Your task to perform on an android device: Show me popular videos on Youtube Image 0: 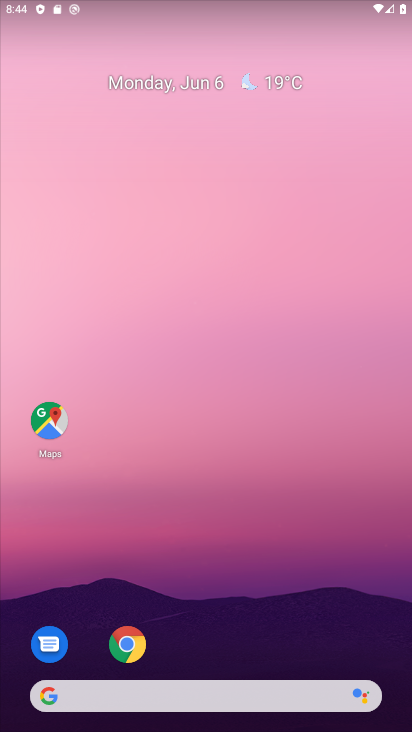
Step 0: drag from (244, 620) to (187, 51)
Your task to perform on an android device: Show me popular videos on Youtube Image 1: 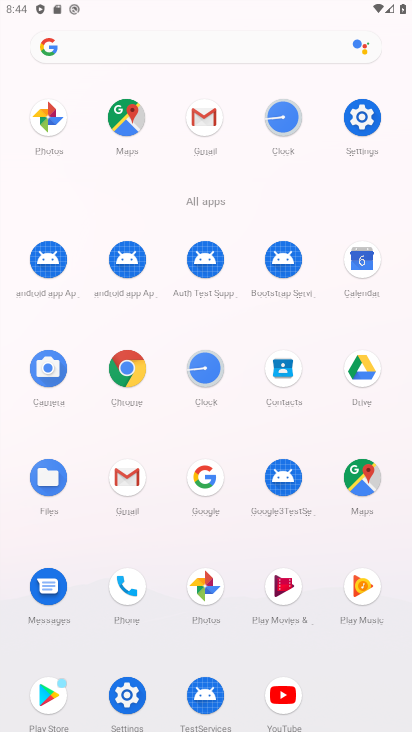
Step 1: click (285, 692)
Your task to perform on an android device: Show me popular videos on Youtube Image 2: 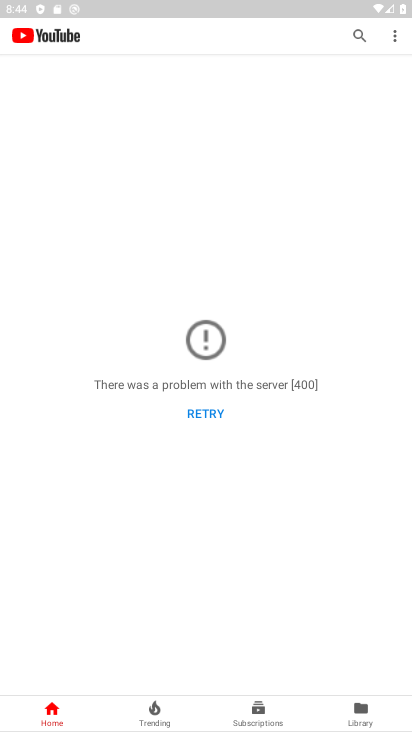
Step 2: click (153, 718)
Your task to perform on an android device: Show me popular videos on Youtube Image 3: 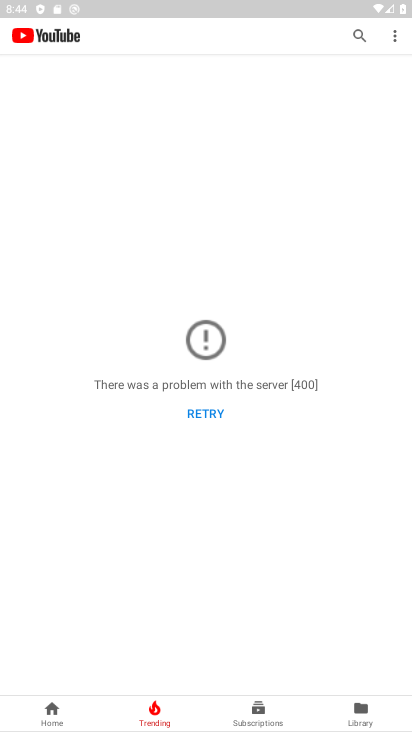
Step 3: click (200, 410)
Your task to perform on an android device: Show me popular videos on Youtube Image 4: 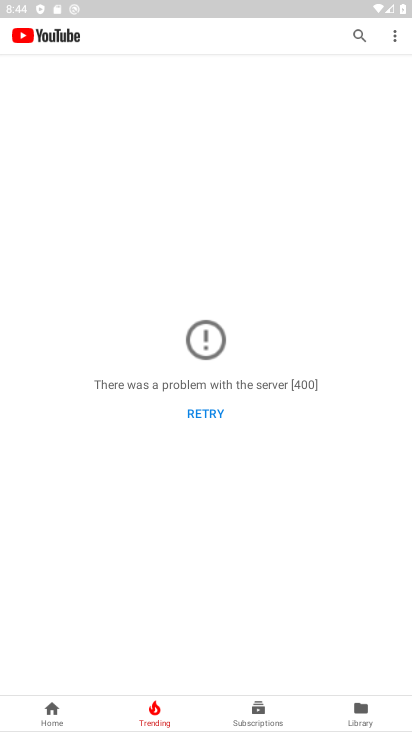
Step 4: task complete